Your task to perform on an android device: What is the recent news? Image 0: 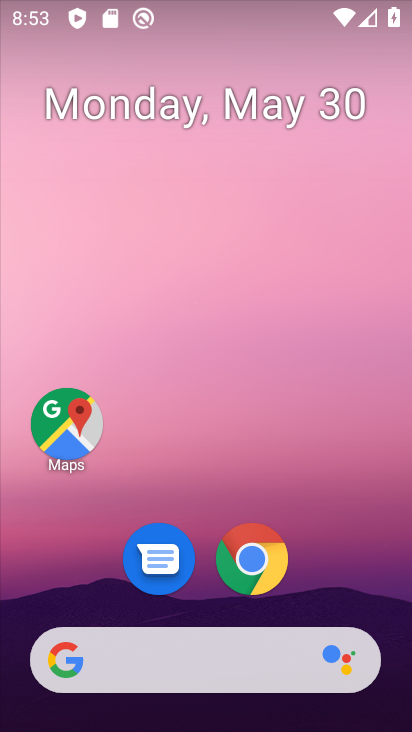
Step 0: drag from (339, 559) to (284, 167)
Your task to perform on an android device: What is the recent news? Image 1: 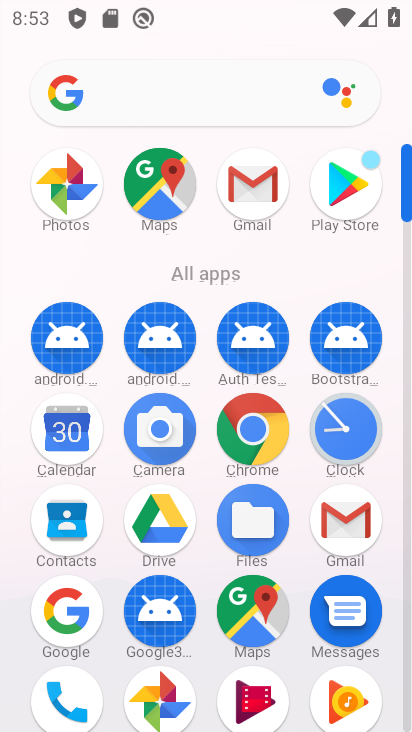
Step 1: click (257, 426)
Your task to perform on an android device: What is the recent news? Image 2: 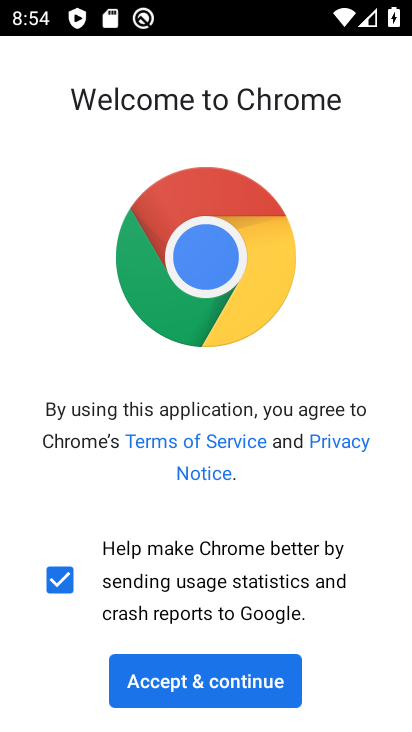
Step 2: click (245, 658)
Your task to perform on an android device: What is the recent news? Image 3: 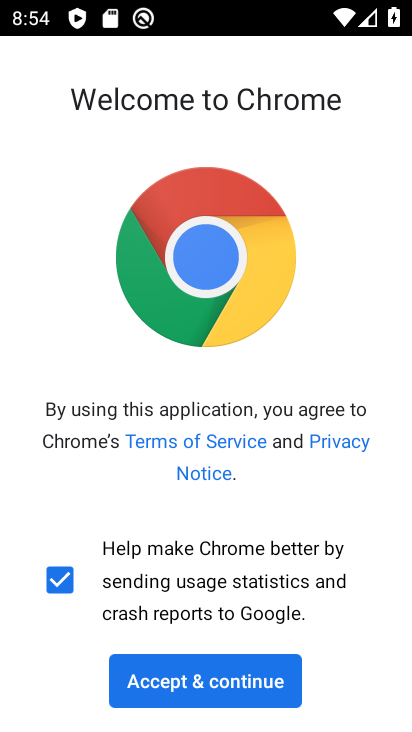
Step 3: click (243, 661)
Your task to perform on an android device: What is the recent news? Image 4: 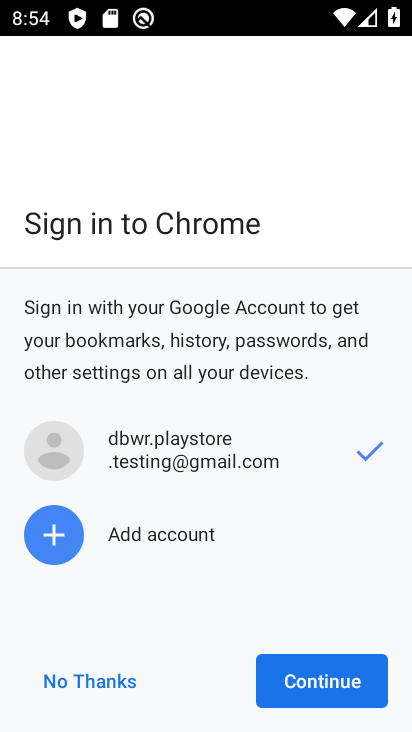
Step 4: click (350, 671)
Your task to perform on an android device: What is the recent news? Image 5: 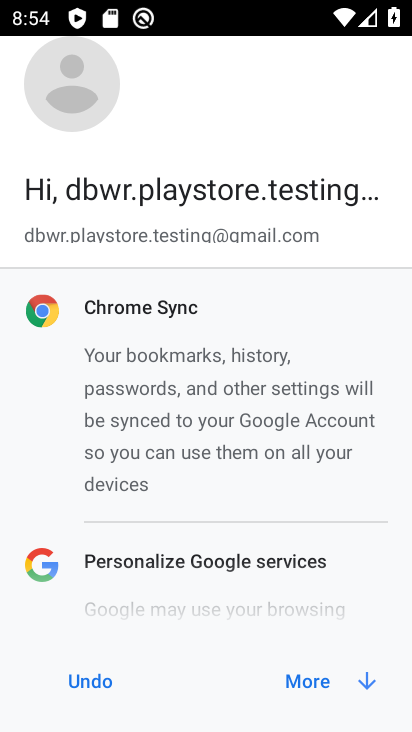
Step 5: click (314, 684)
Your task to perform on an android device: What is the recent news? Image 6: 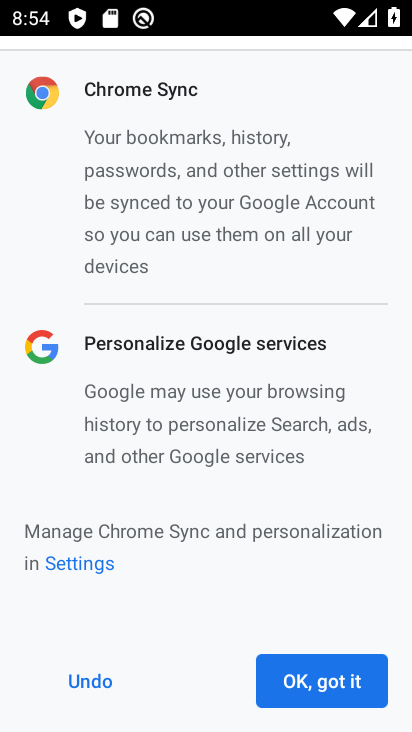
Step 6: click (315, 688)
Your task to perform on an android device: What is the recent news? Image 7: 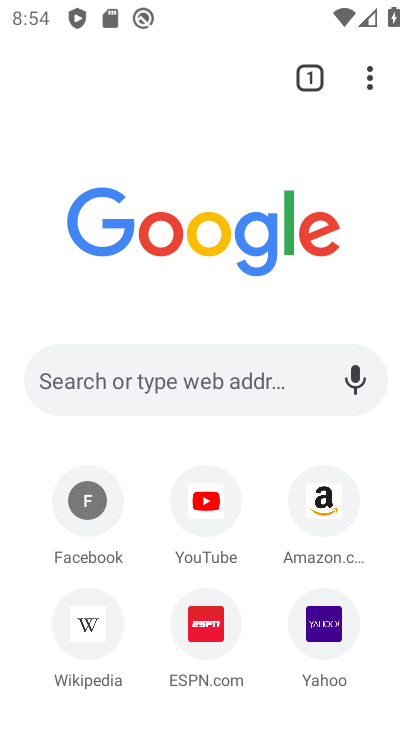
Step 7: click (286, 398)
Your task to perform on an android device: What is the recent news? Image 8: 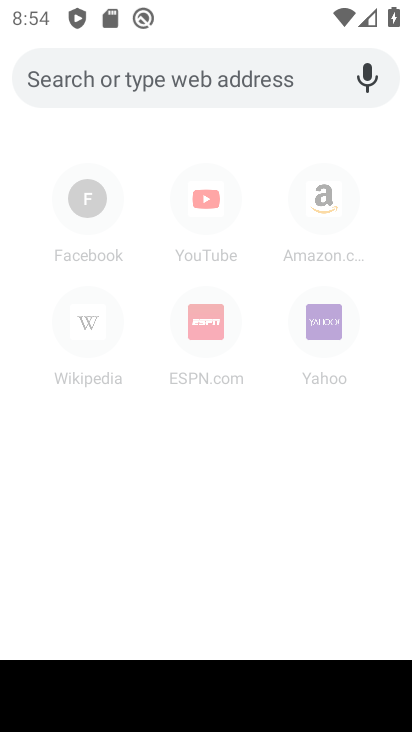
Step 8: type "news"
Your task to perform on an android device: What is the recent news? Image 9: 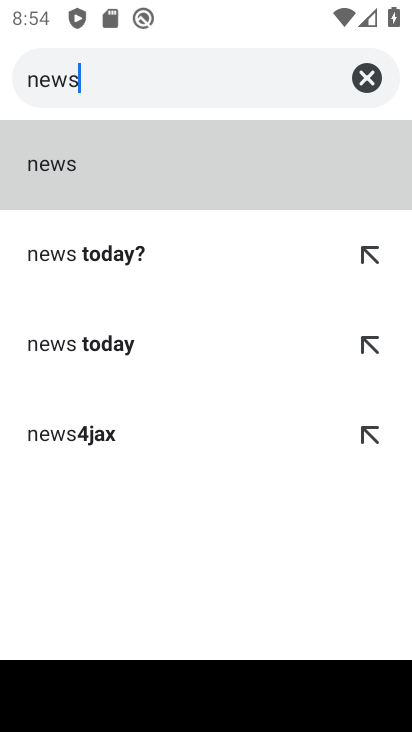
Step 9: click (44, 162)
Your task to perform on an android device: What is the recent news? Image 10: 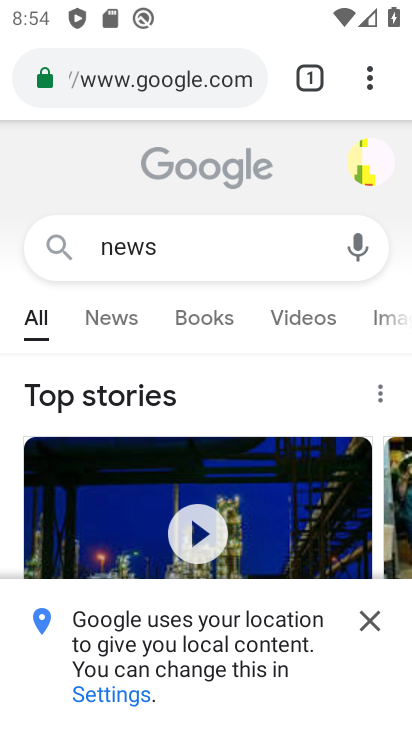
Step 10: click (111, 310)
Your task to perform on an android device: What is the recent news? Image 11: 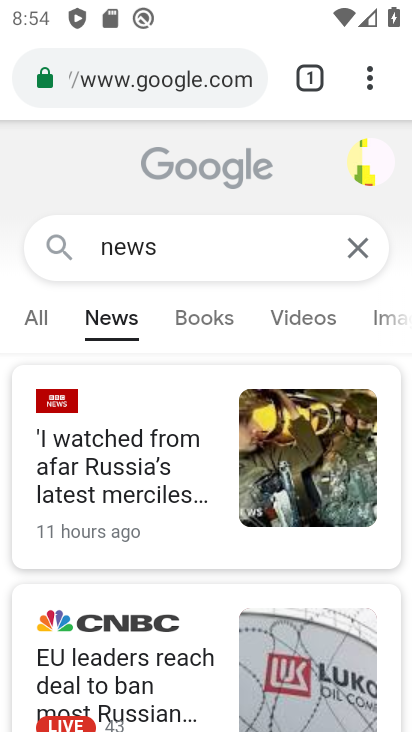
Step 11: task complete